Your task to perform on an android device: Show the shopping cart on newegg.com. Add "asus zenbook" to the cart on newegg.com, then select checkout. Image 0: 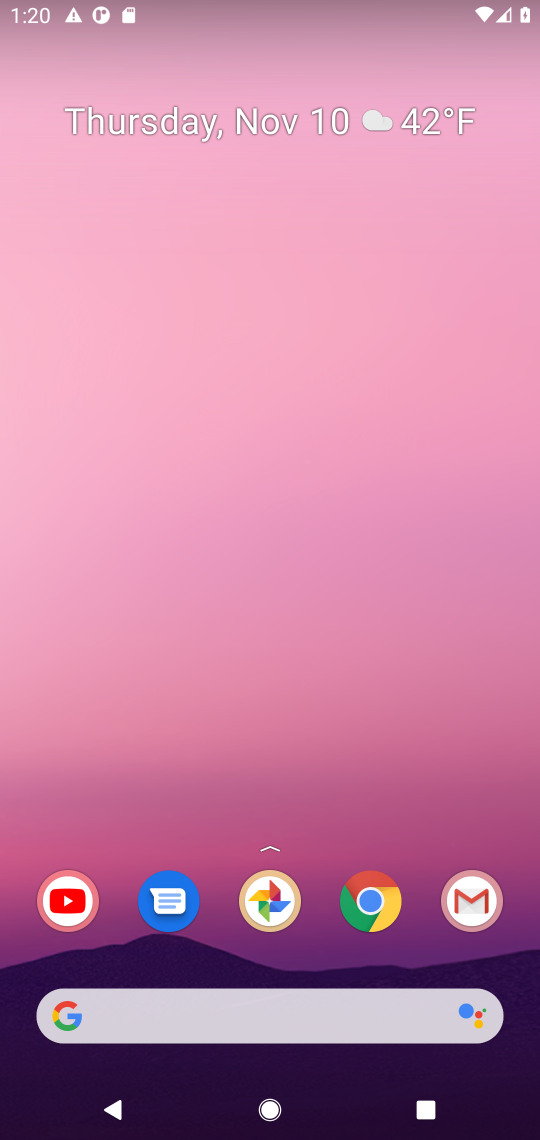
Step 0: drag from (267, 907) to (418, 105)
Your task to perform on an android device: Show the shopping cart on newegg.com. Add "asus zenbook" to the cart on newegg.com, then select checkout. Image 1: 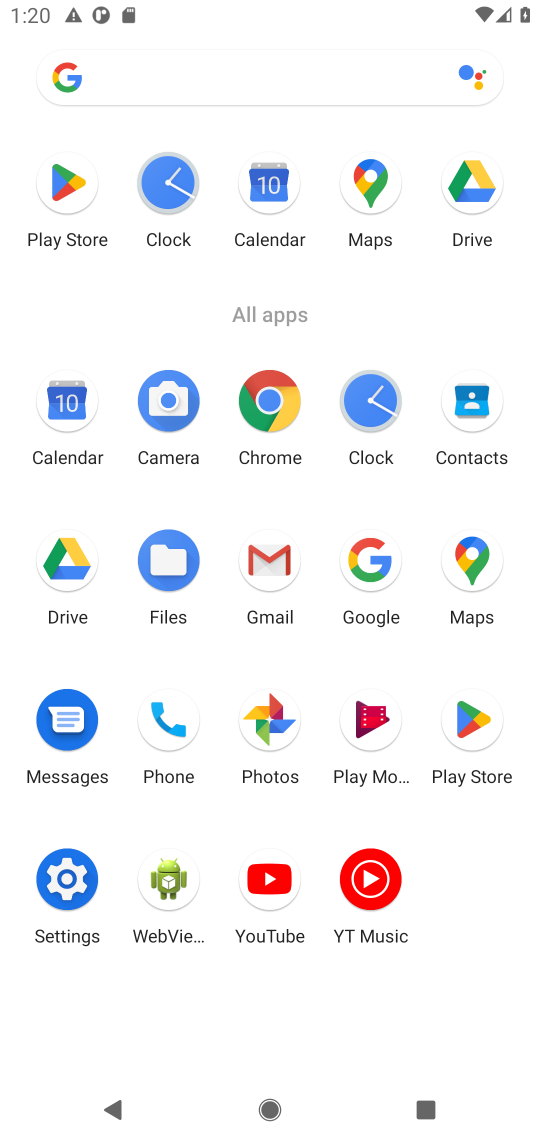
Step 1: click (238, 423)
Your task to perform on an android device: Show the shopping cart on newegg.com. Add "asus zenbook" to the cart on newegg.com, then select checkout. Image 2: 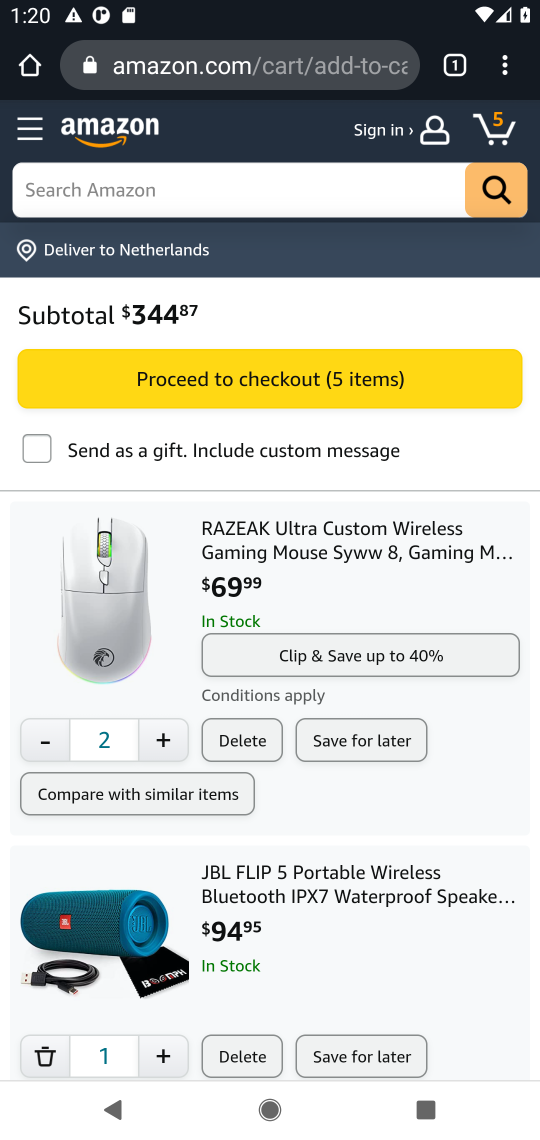
Step 2: click (225, 68)
Your task to perform on an android device: Show the shopping cart on newegg.com. Add "asus zenbook" to the cart on newegg.com, then select checkout. Image 3: 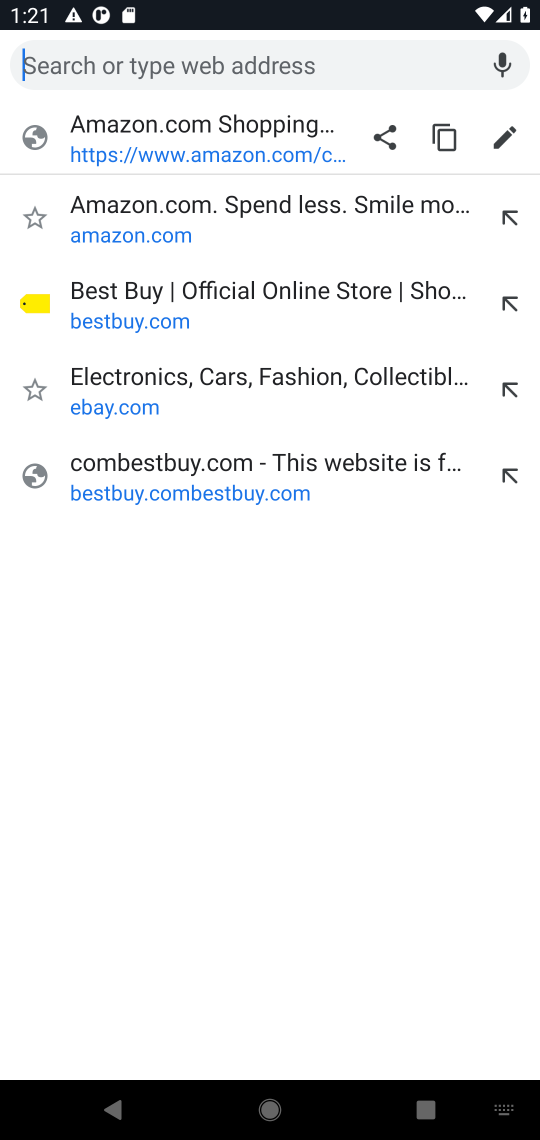
Step 3: type "newegg.com"
Your task to perform on an android device: Show the shopping cart on newegg.com. Add "asus zenbook" to the cart on newegg.com, then select checkout. Image 4: 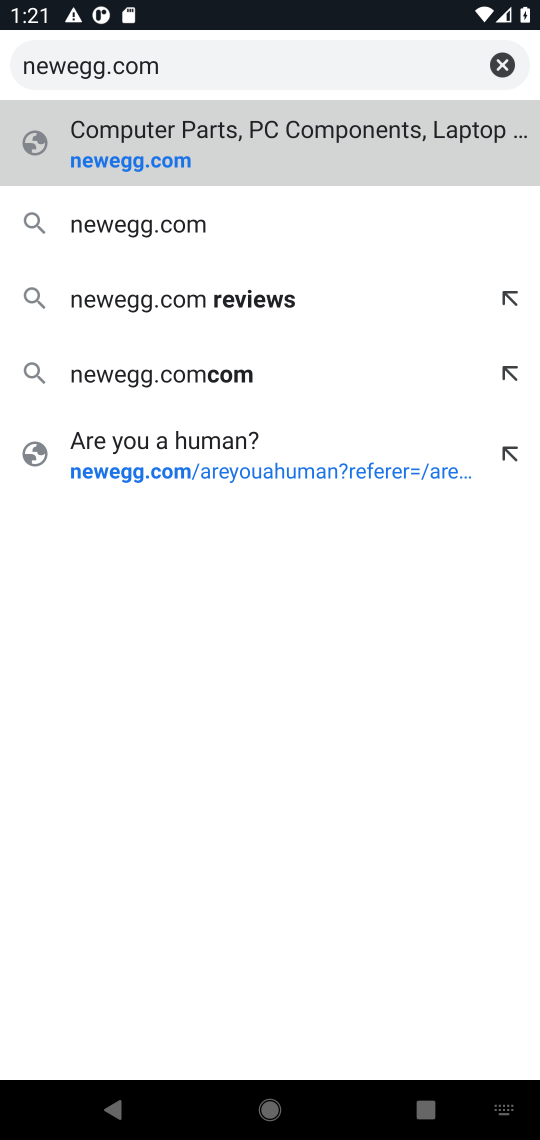
Step 4: press enter
Your task to perform on an android device: Show the shopping cart on newegg.com. Add "asus zenbook" to the cart on newegg.com, then select checkout. Image 5: 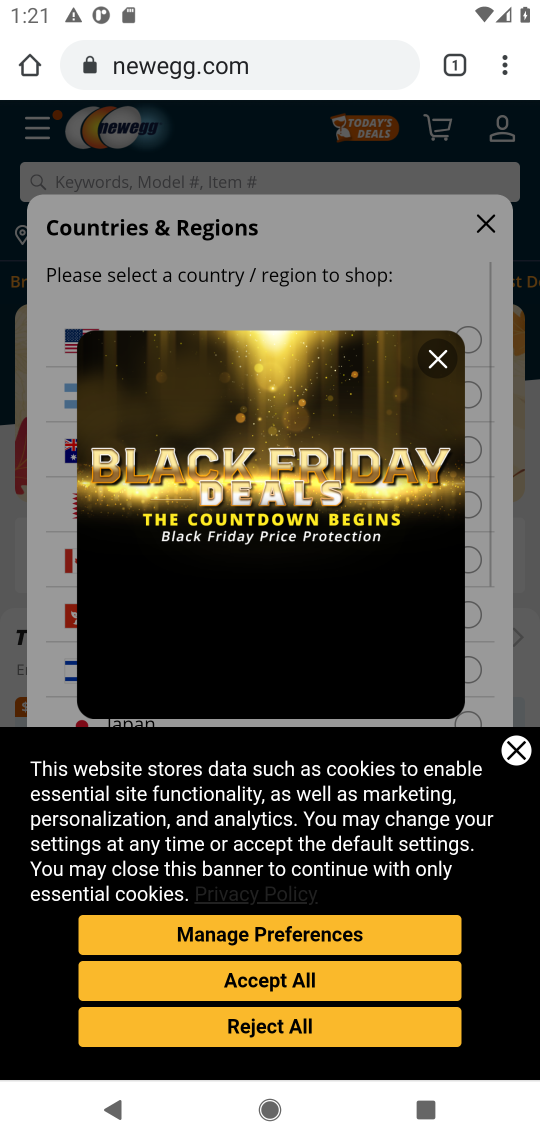
Step 5: click (271, 969)
Your task to perform on an android device: Show the shopping cart on newegg.com. Add "asus zenbook" to the cart on newegg.com, then select checkout. Image 6: 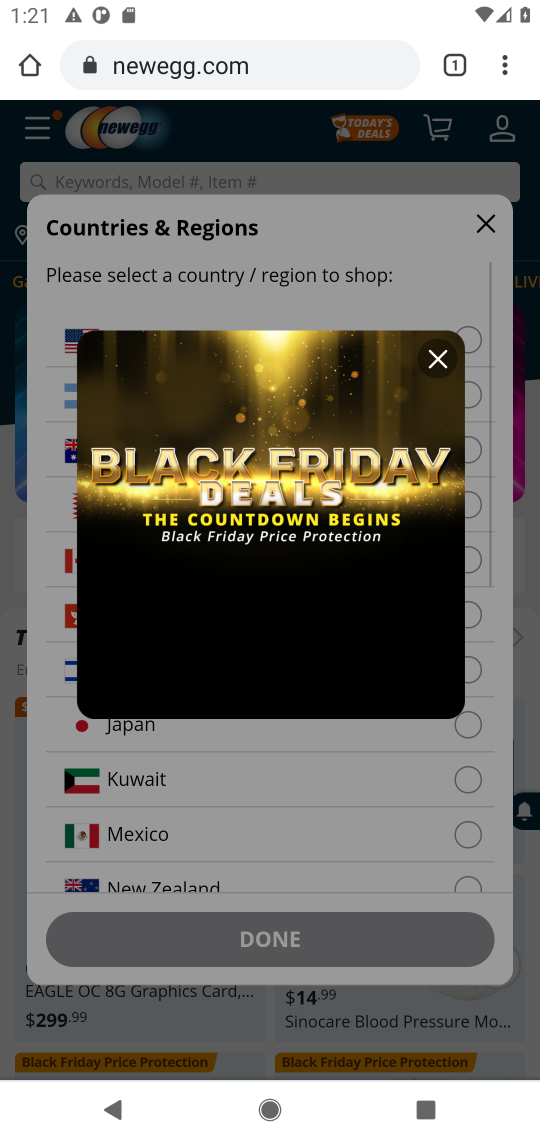
Step 6: click (437, 355)
Your task to perform on an android device: Show the shopping cart on newegg.com. Add "asus zenbook" to the cart on newegg.com, then select checkout. Image 7: 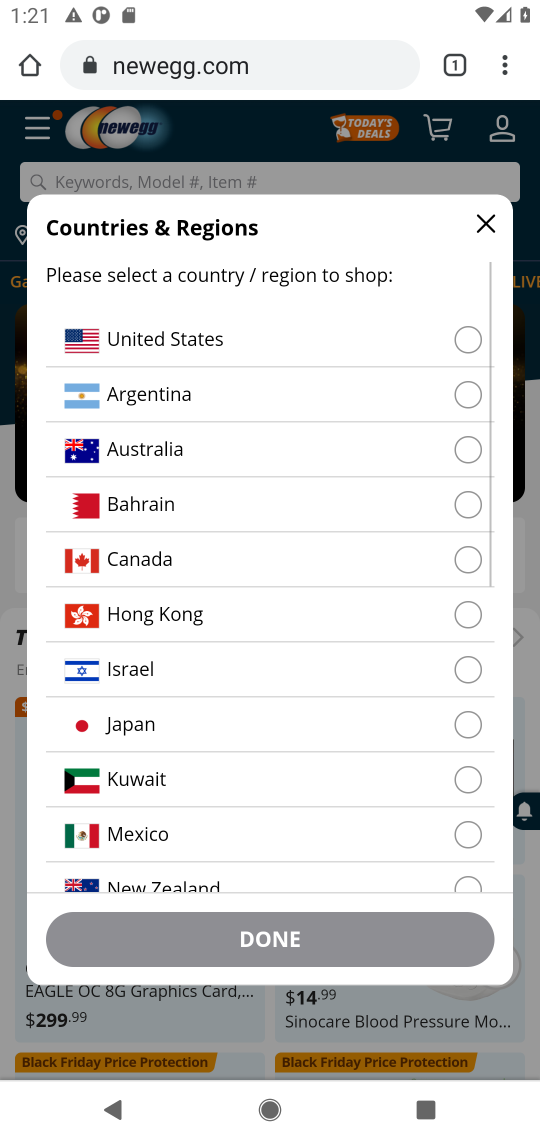
Step 7: click (211, 395)
Your task to perform on an android device: Show the shopping cart on newegg.com. Add "asus zenbook" to the cart on newegg.com, then select checkout. Image 8: 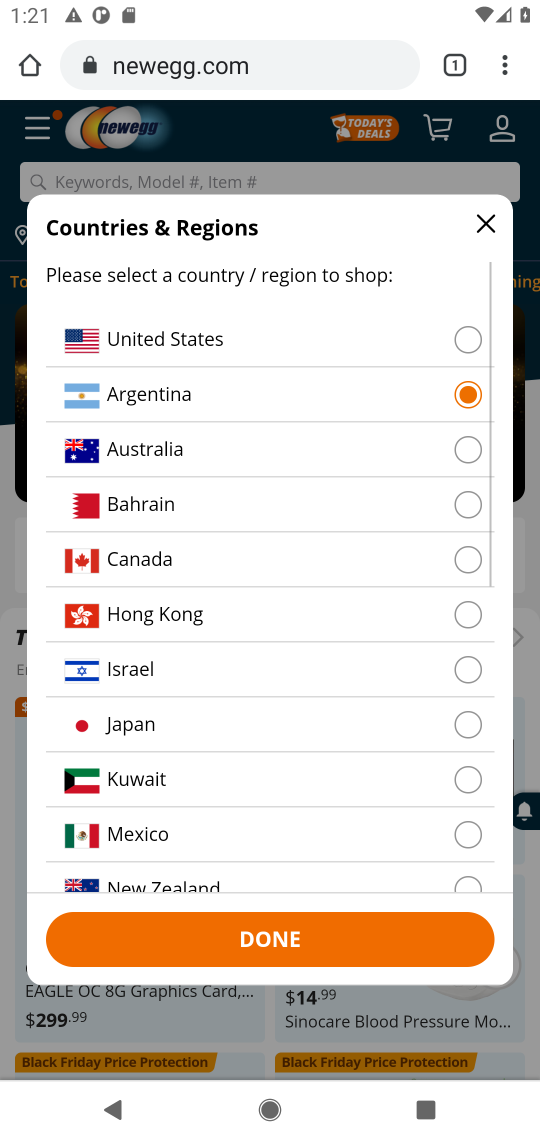
Step 8: click (129, 348)
Your task to perform on an android device: Show the shopping cart on newegg.com. Add "asus zenbook" to the cart on newegg.com, then select checkout. Image 9: 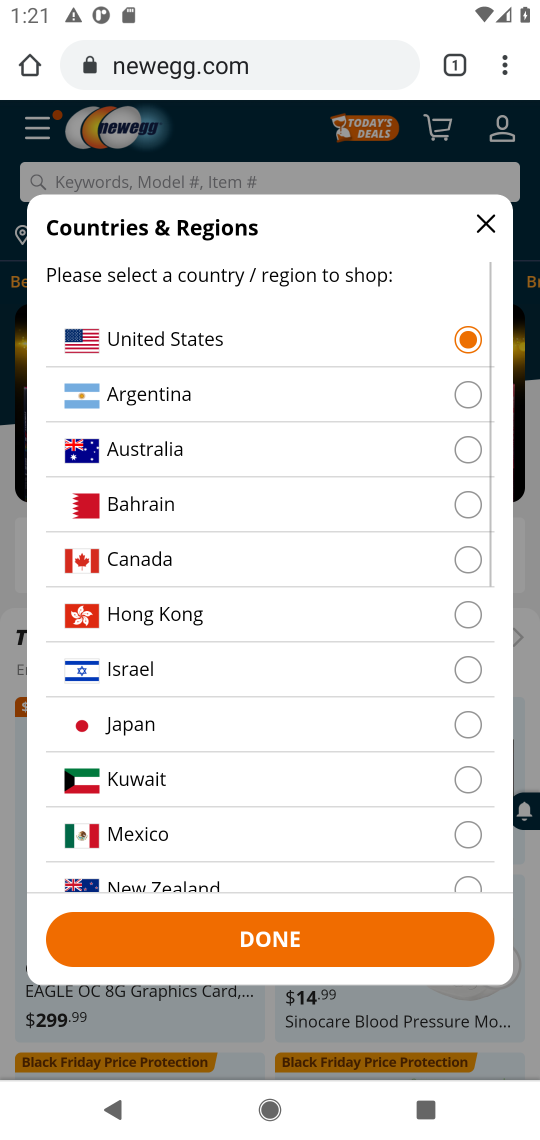
Step 9: click (231, 924)
Your task to perform on an android device: Show the shopping cart on newegg.com. Add "asus zenbook" to the cart on newegg.com, then select checkout. Image 10: 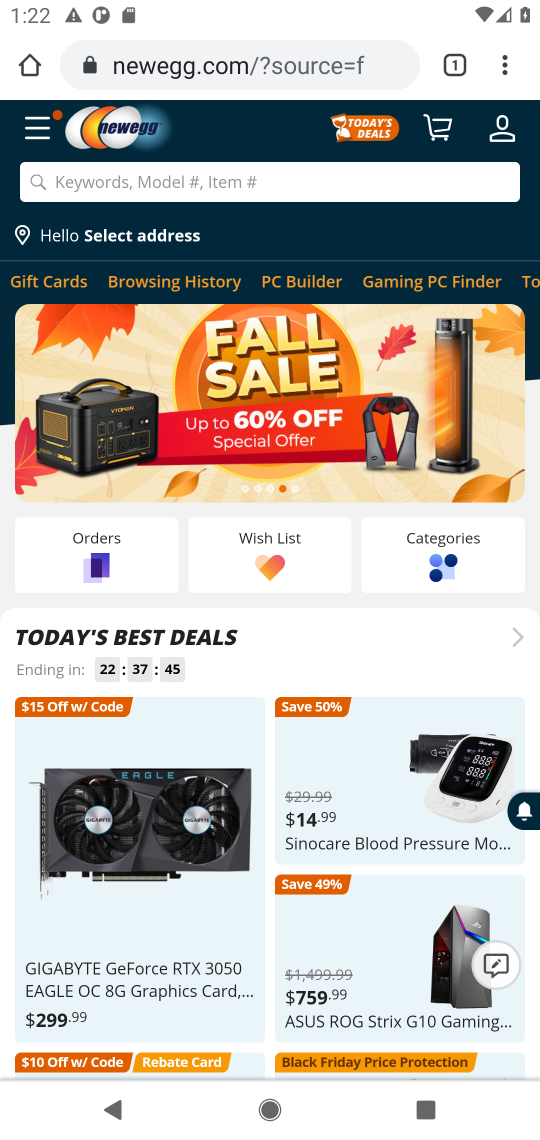
Step 10: click (80, 176)
Your task to perform on an android device: Show the shopping cart on newegg.com. Add "asus zenbook" to the cart on newegg.com, then select checkout. Image 11: 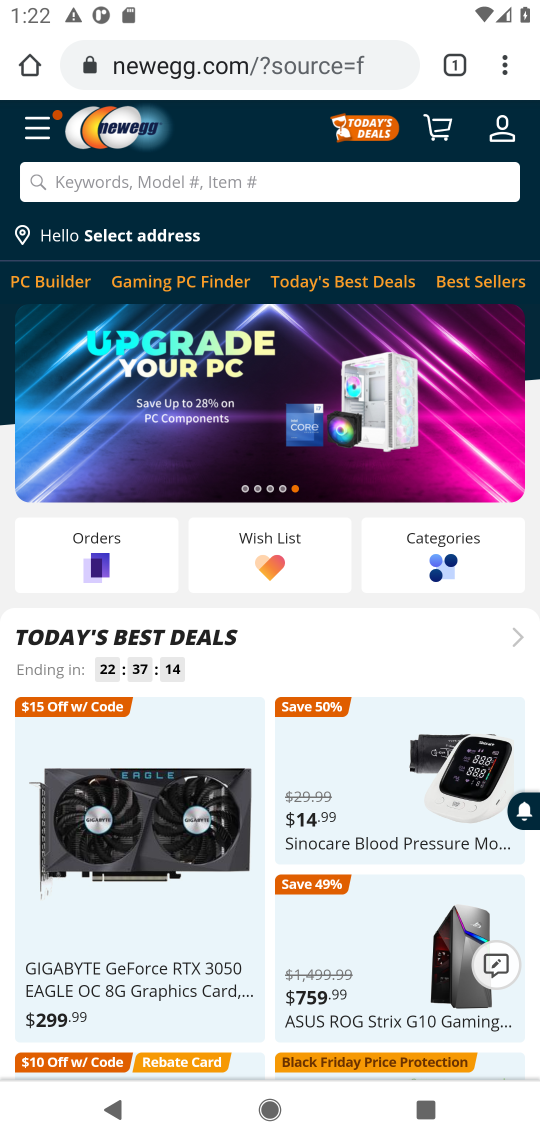
Step 11: click (287, 189)
Your task to perform on an android device: Show the shopping cart on newegg.com. Add "asus zenbook" to the cart on newegg.com, then select checkout. Image 12: 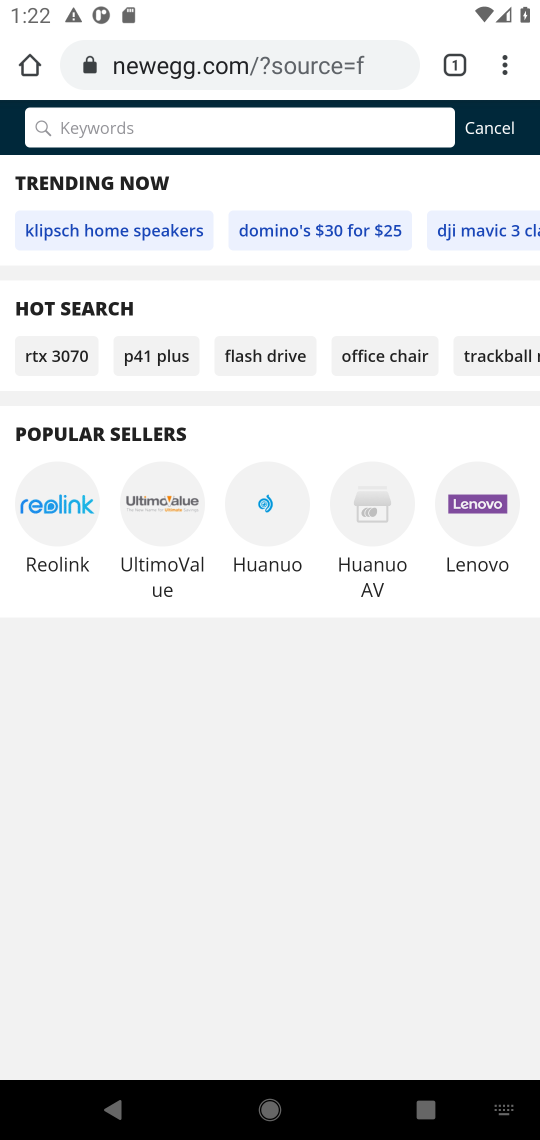
Step 12: type "asus zenbook"
Your task to perform on an android device: Show the shopping cart on newegg.com. Add "asus zenbook" to the cart on newegg.com, then select checkout. Image 13: 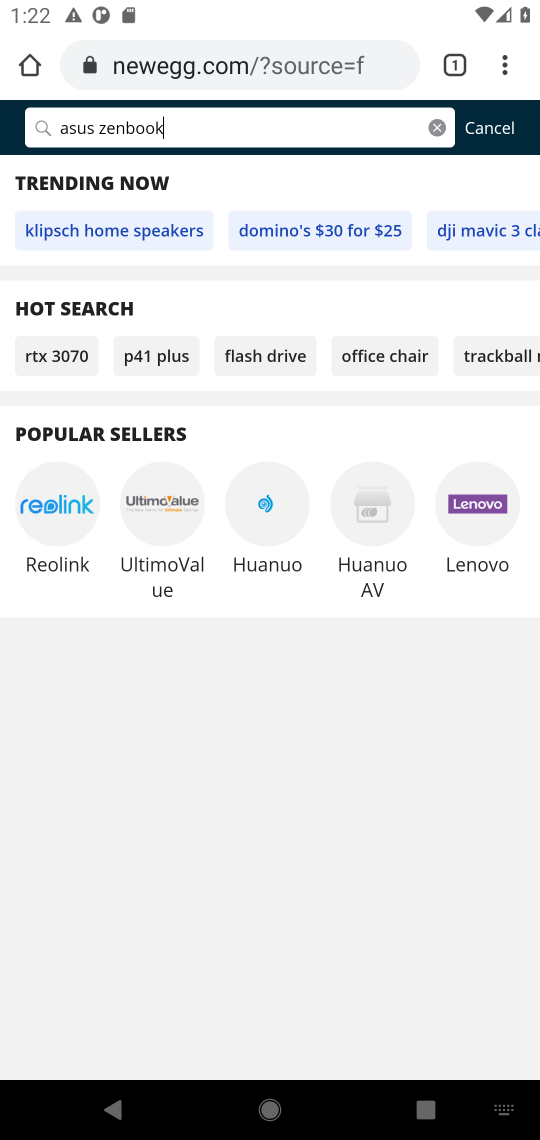
Step 13: press enter
Your task to perform on an android device: Show the shopping cart on newegg.com. Add "asus zenbook" to the cart on newegg.com, then select checkout. Image 14: 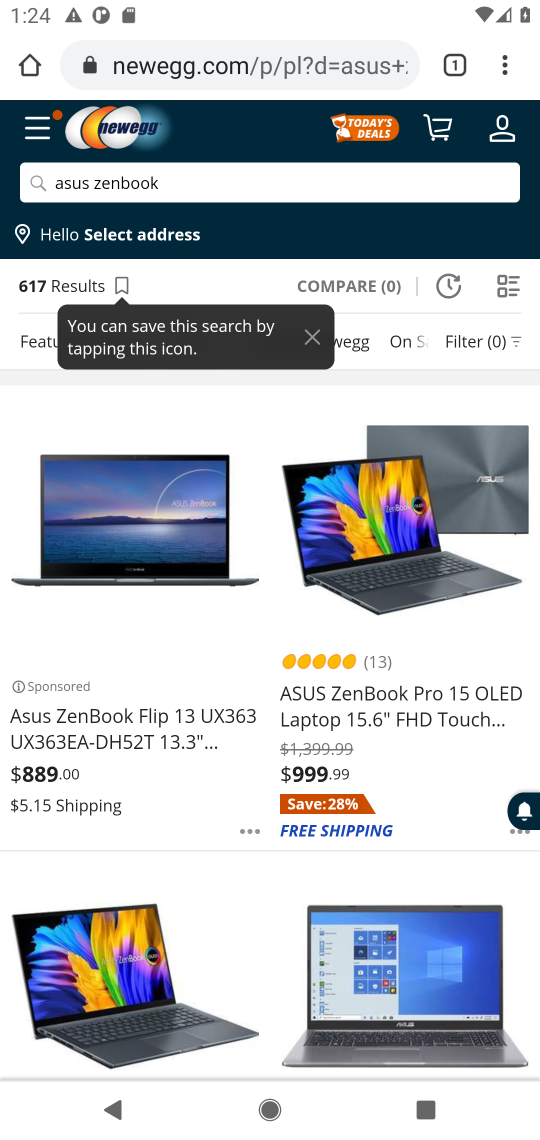
Step 14: click (70, 733)
Your task to perform on an android device: Show the shopping cart on newegg.com. Add "asus zenbook" to the cart on newegg.com, then select checkout. Image 15: 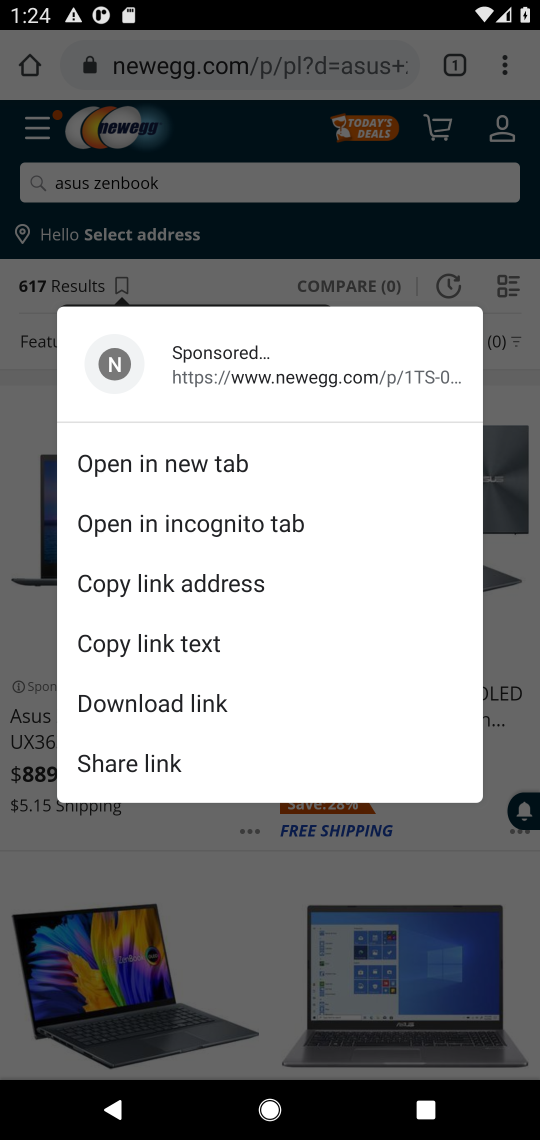
Step 15: click (36, 752)
Your task to perform on an android device: Show the shopping cart on newegg.com. Add "asus zenbook" to the cart on newegg.com, then select checkout. Image 16: 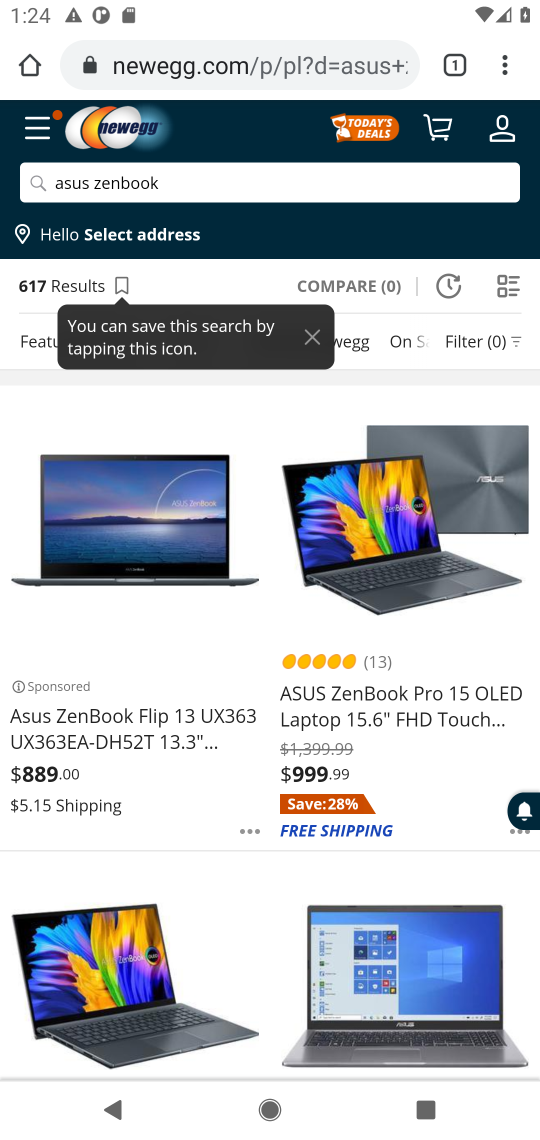
Step 16: click (45, 716)
Your task to perform on an android device: Show the shopping cart on newegg.com. Add "asus zenbook" to the cart on newegg.com, then select checkout. Image 17: 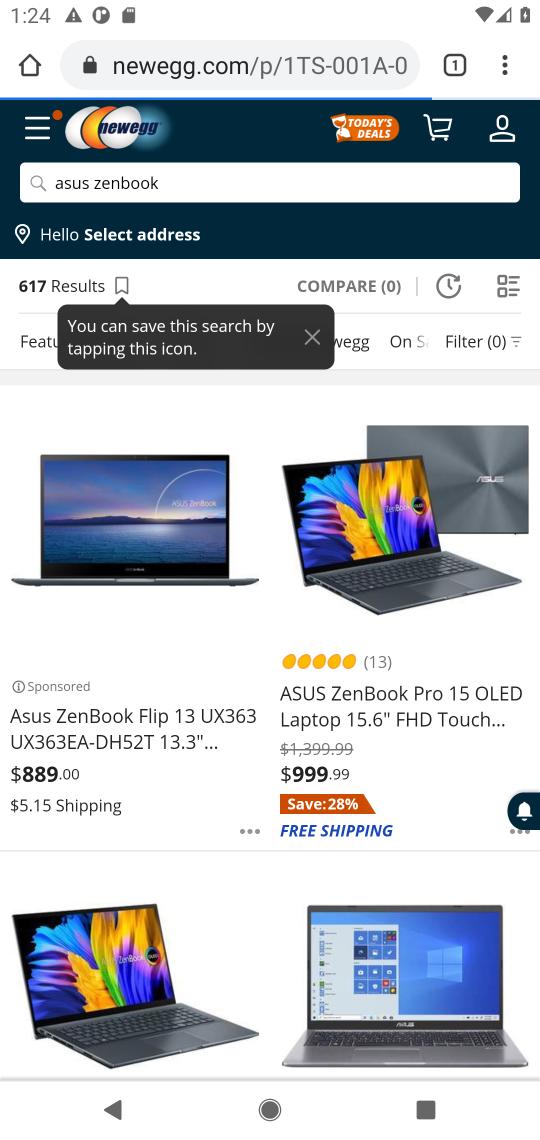
Step 17: click (78, 740)
Your task to perform on an android device: Show the shopping cart on newegg.com. Add "asus zenbook" to the cart on newegg.com, then select checkout. Image 18: 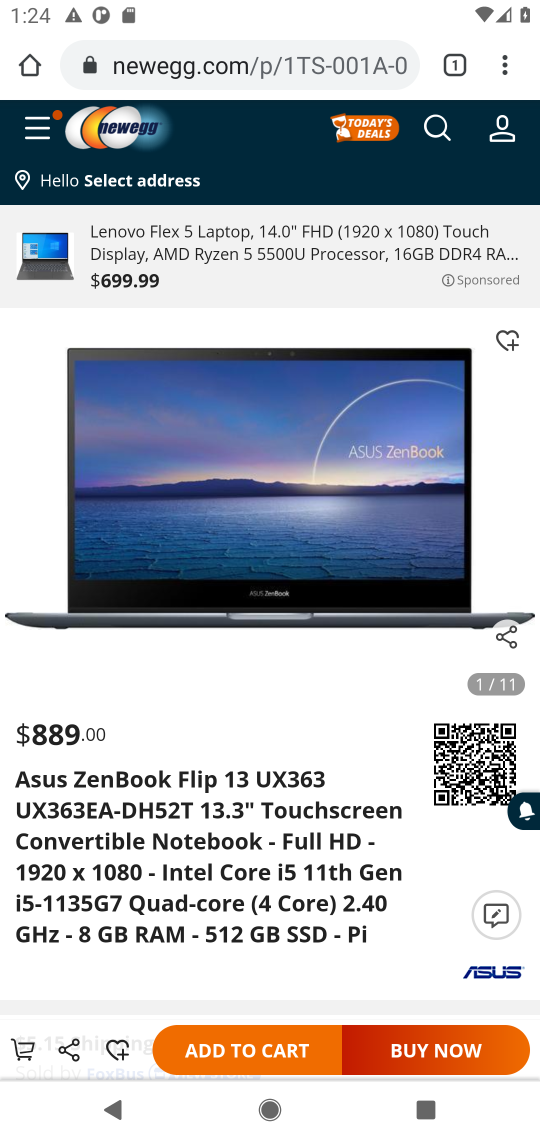
Step 18: drag from (111, 679) to (166, 508)
Your task to perform on an android device: Show the shopping cart on newegg.com. Add "asus zenbook" to the cart on newegg.com, then select checkout. Image 19: 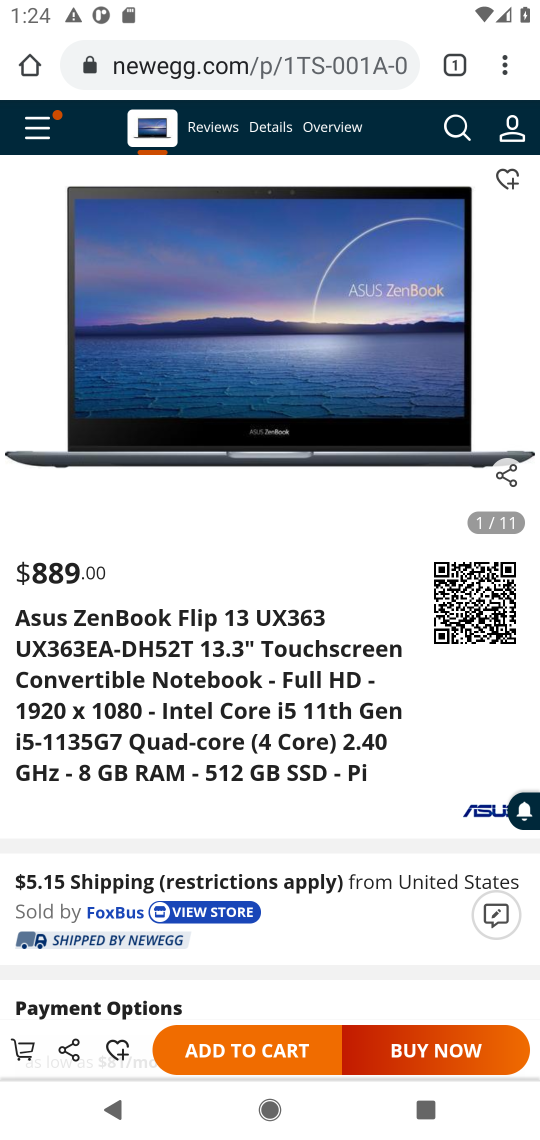
Step 19: click (218, 1051)
Your task to perform on an android device: Show the shopping cart on newegg.com. Add "asus zenbook" to the cart on newegg.com, then select checkout. Image 20: 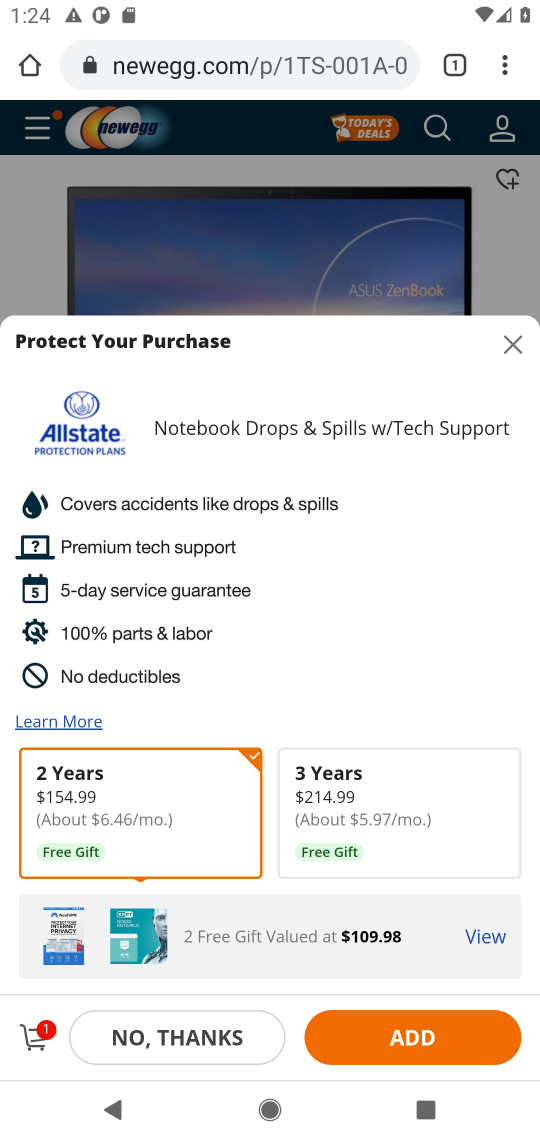
Step 20: click (457, 1039)
Your task to perform on an android device: Show the shopping cart on newegg.com. Add "asus zenbook" to the cart on newegg.com, then select checkout. Image 21: 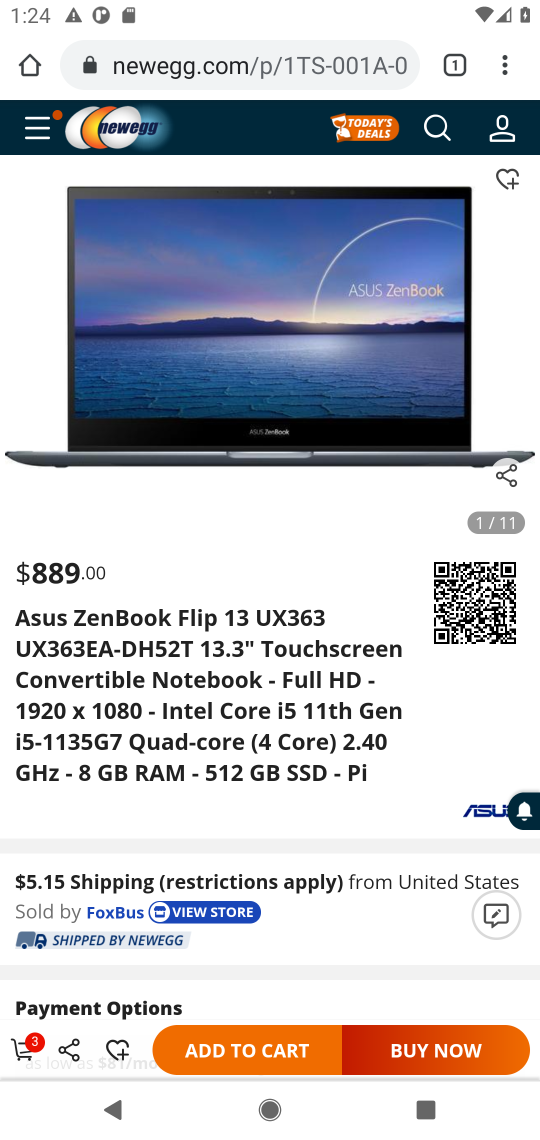
Step 21: drag from (481, 208) to (412, 405)
Your task to perform on an android device: Show the shopping cart on newegg.com. Add "asus zenbook" to the cart on newegg.com, then select checkout. Image 22: 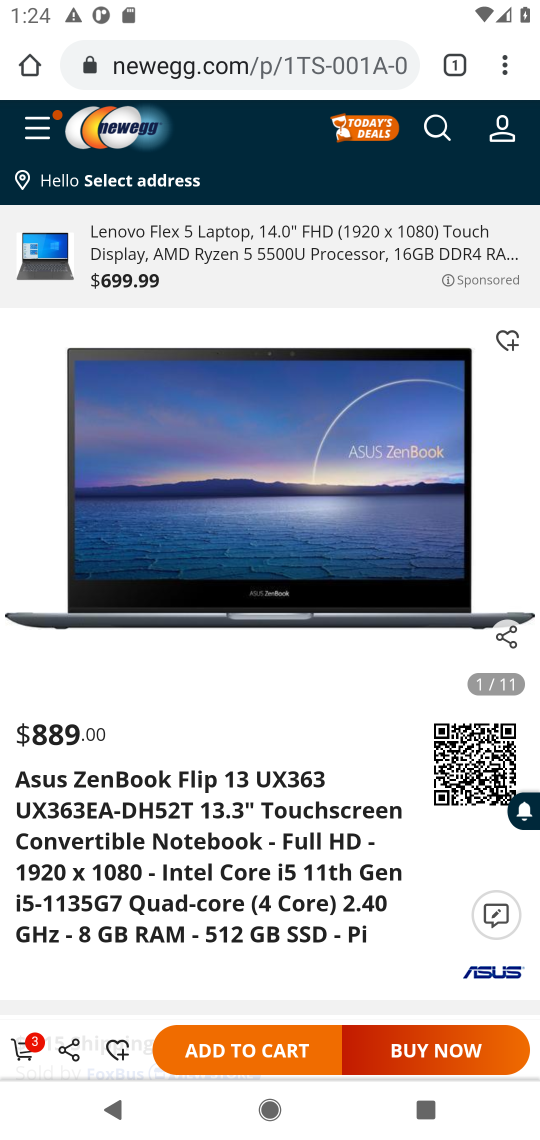
Step 22: click (16, 147)
Your task to perform on an android device: Show the shopping cart on newegg.com. Add "asus zenbook" to the cart on newegg.com, then select checkout. Image 23: 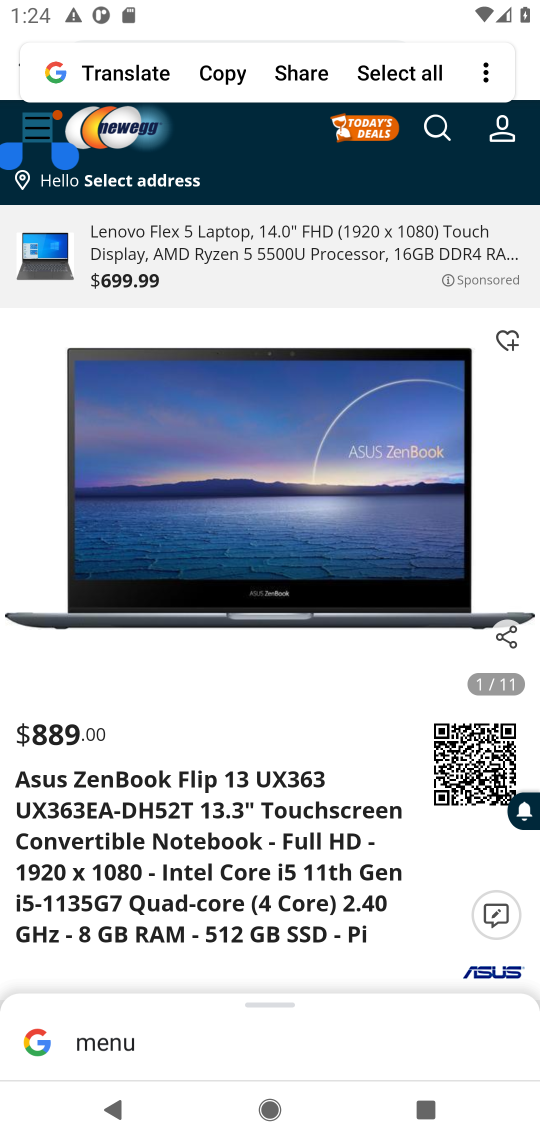
Step 23: click (48, 125)
Your task to perform on an android device: Show the shopping cart on newegg.com. Add "asus zenbook" to the cart on newegg.com, then select checkout. Image 24: 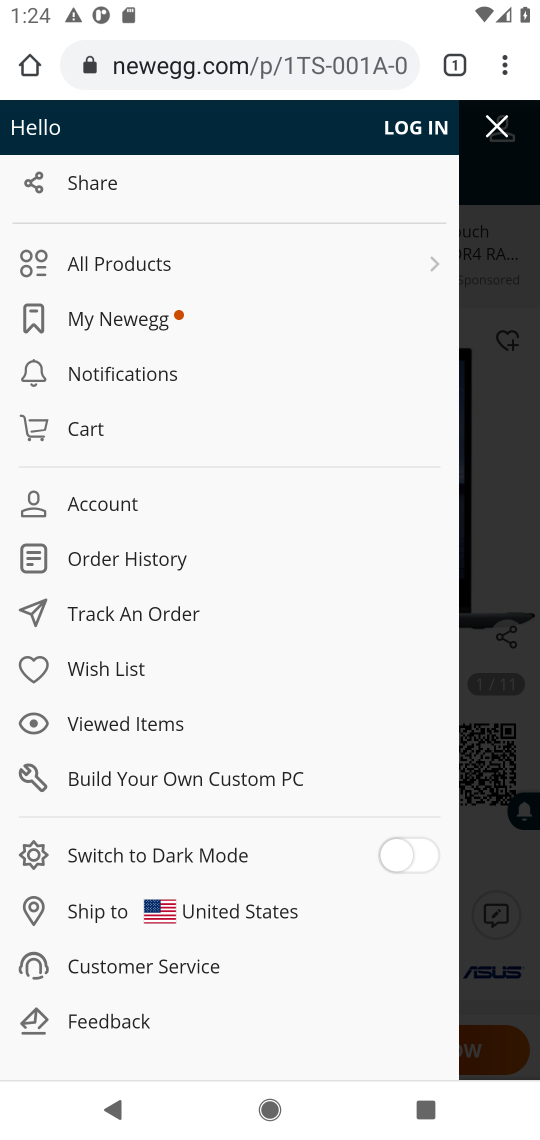
Step 24: click (97, 437)
Your task to perform on an android device: Show the shopping cart on newegg.com. Add "asus zenbook" to the cart on newegg.com, then select checkout. Image 25: 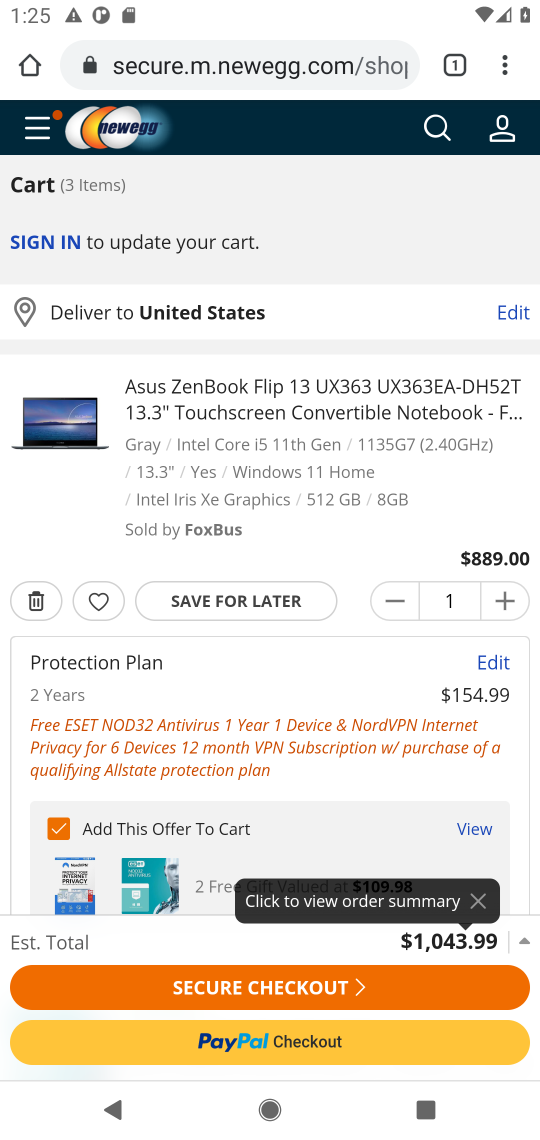
Step 25: click (324, 987)
Your task to perform on an android device: Show the shopping cart on newegg.com. Add "asus zenbook" to the cart on newegg.com, then select checkout. Image 26: 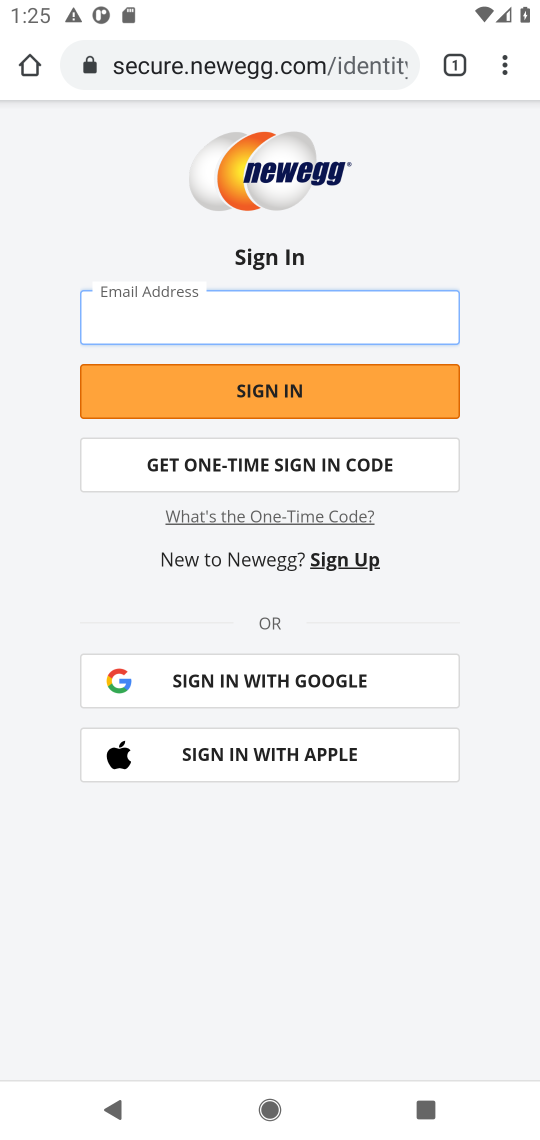
Step 26: task complete